Your task to perform on an android device: allow notifications from all sites in the chrome app Image 0: 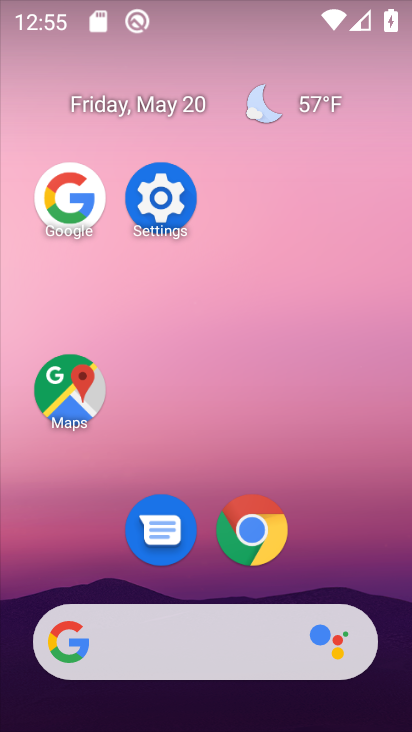
Step 0: click (278, 521)
Your task to perform on an android device: allow notifications from all sites in the chrome app Image 1: 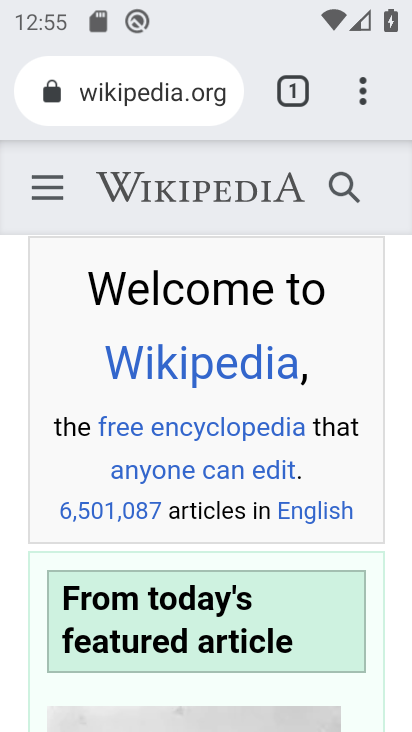
Step 1: click (370, 96)
Your task to perform on an android device: allow notifications from all sites in the chrome app Image 2: 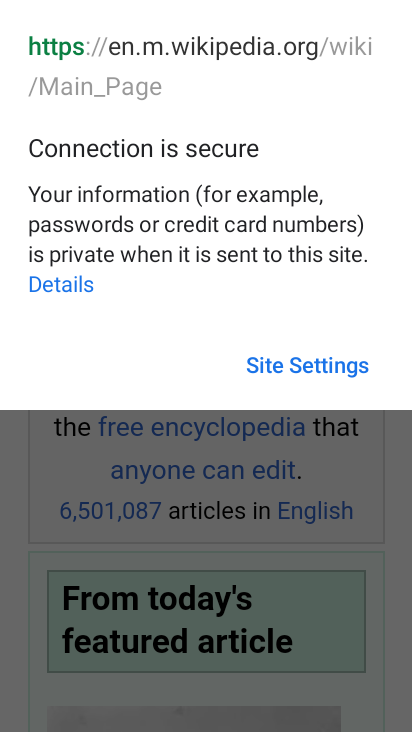
Step 2: click (384, 592)
Your task to perform on an android device: allow notifications from all sites in the chrome app Image 3: 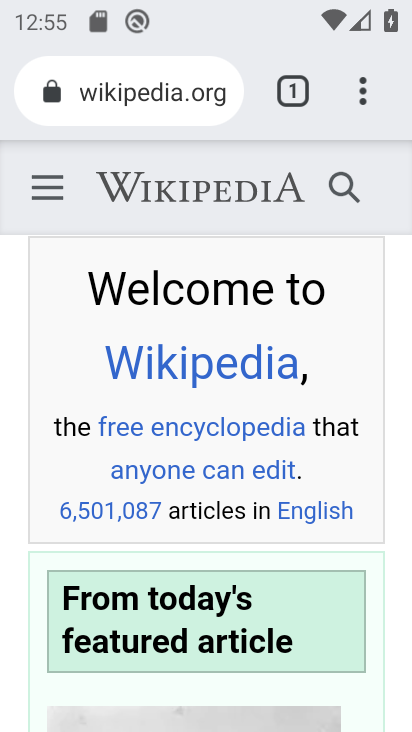
Step 3: click (368, 100)
Your task to perform on an android device: allow notifications from all sites in the chrome app Image 4: 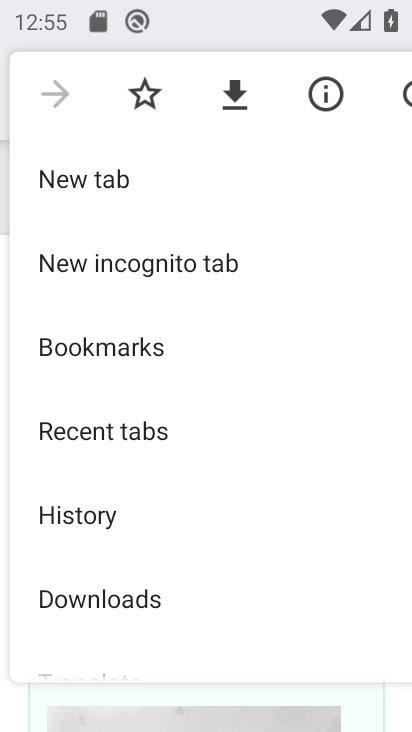
Step 4: drag from (236, 530) to (268, 160)
Your task to perform on an android device: allow notifications from all sites in the chrome app Image 5: 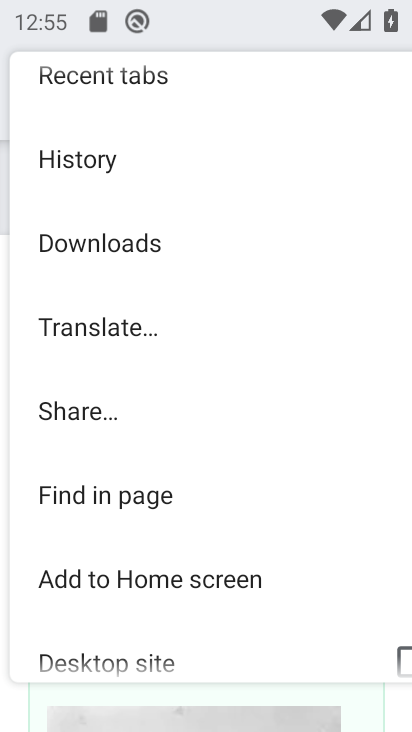
Step 5: drag from (176, 545) to (195, 210)
Your task to perform on an android device: allow notifications from all sites in the chrome app Image 6: 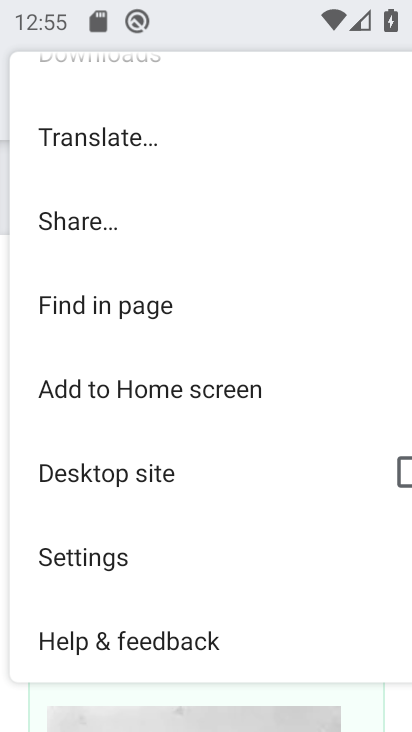
Step 6: click (107, 565)
Your task to perform on an android device: allow notifications from all sites in the chrome app Image 7: 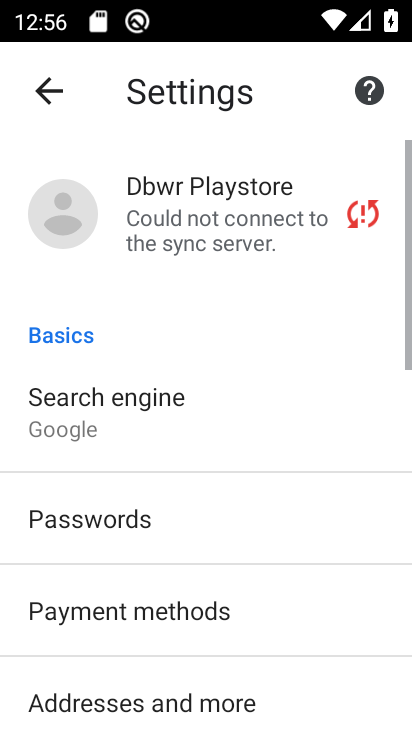
Step 7: drag from (107, 565) to (118, 227)
Your task to perform on an android device: allow notifications from all sites in the chrome app Image 8: 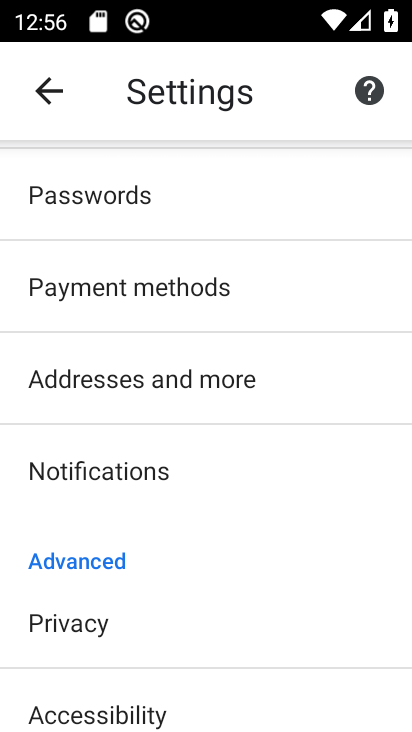
Step 8: click (179, 472)
Your task to perform on an android device: allow notifications from all sites in the chrome app Image 9: 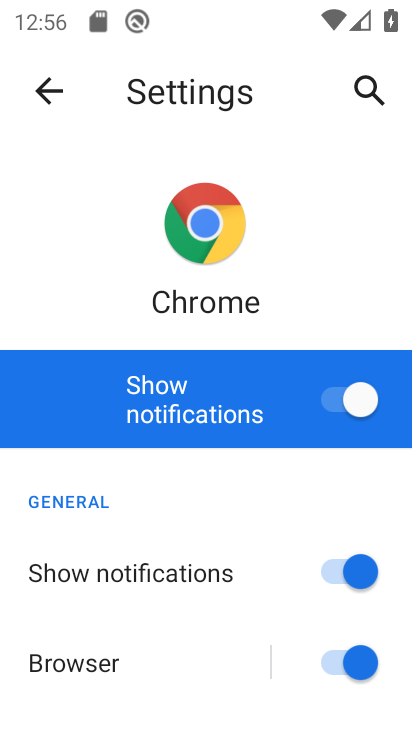
Step 9: task complete